Your task to perform on an android device: Open accessibility settings Image 0: 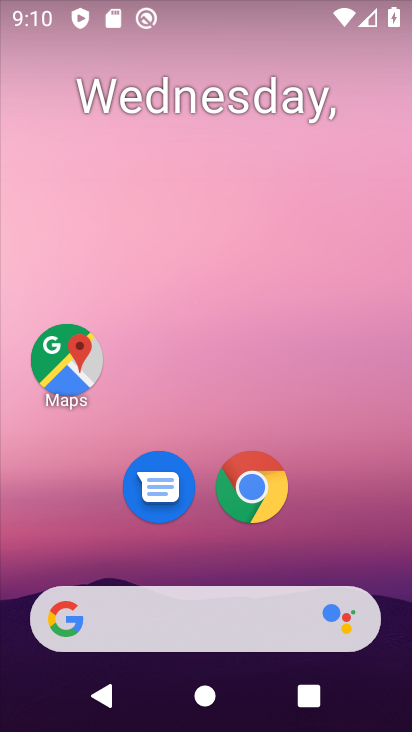
Step 0: drag from (223, 569) to (269, 11)
Your task to perform on an android device: Open accessibility settings Image 1: 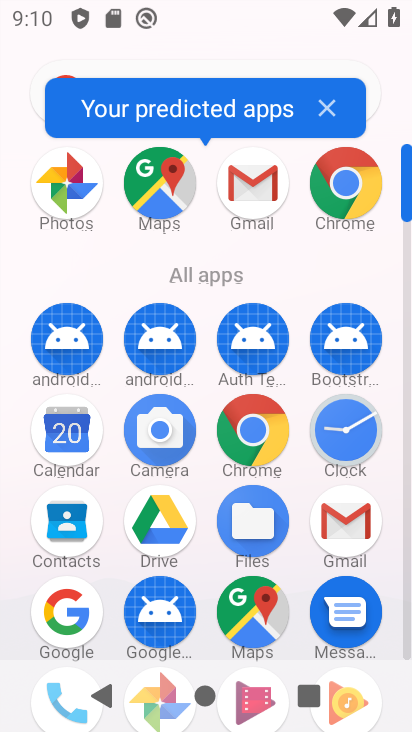
Step 1: drag from (211, 560) to (195, 161)
Your task to perform on an android device: Open accessibility settings Image 2: 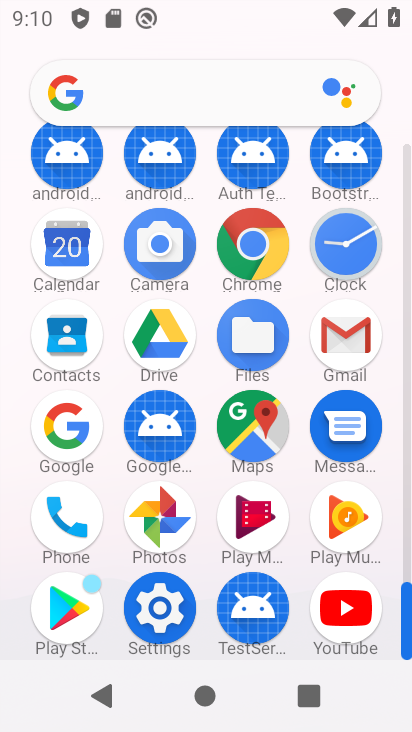
Step 2: click (152, 618)
Your task to perform on an android device: Open accessibility settings Image 3: 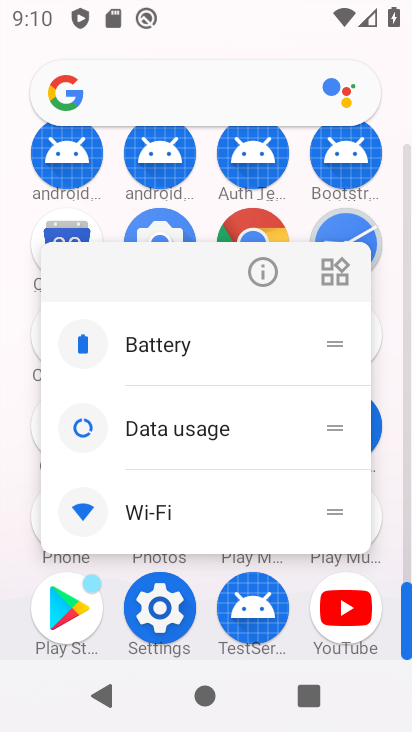
Step 3: click (178, 609)
Your task to perform on an android device: Open accessibility settings Image 4: 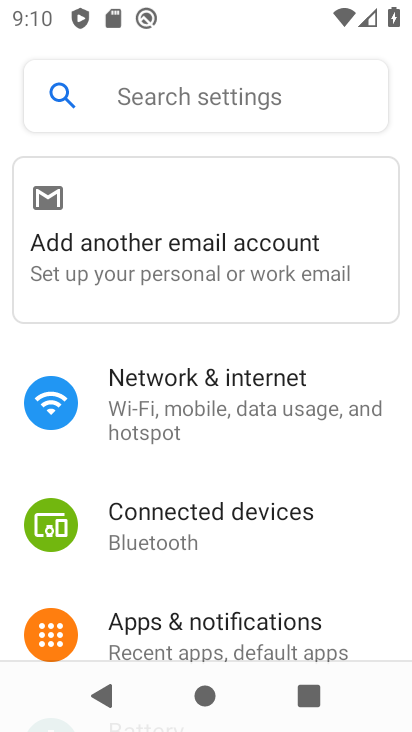
Step 4: drag from (272, 503) to (260, 100)
Your task to perform on an android device: Open accessibility settings Image 5: 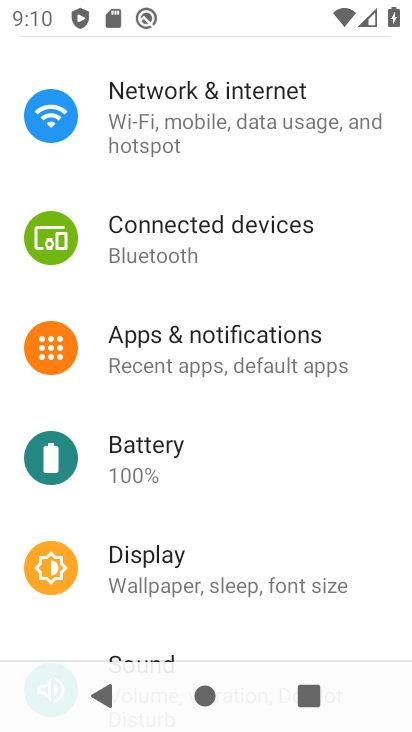
Step 5: drag from (157, 527) to (148, 111)
Your task to perform on an android device: Open accessibility settings Image 6: 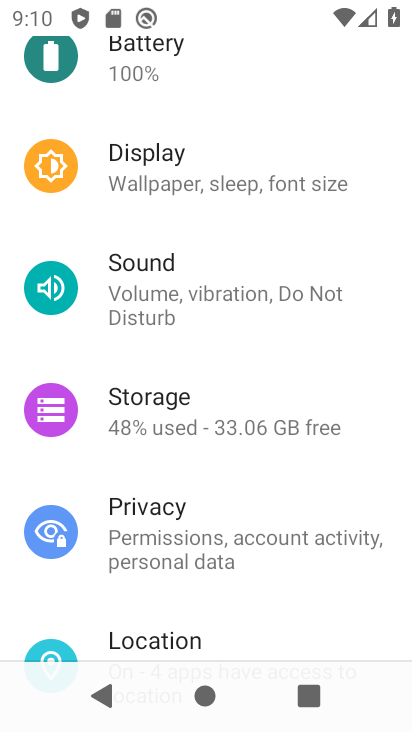
Step 6: drag from (234, 494) to (223, 109)
Your task to perform on an android device: Open accessibility settings Image 7: 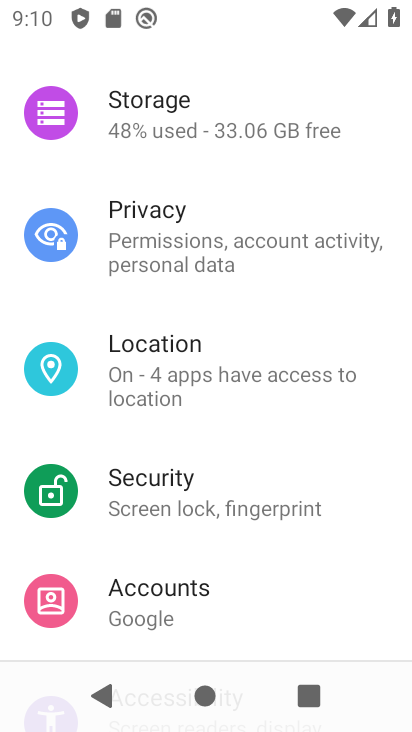
Step 7: drag from (204, 516) to (173, 104)
Your task to perform on an android device: Open accessibility settings Image 8: 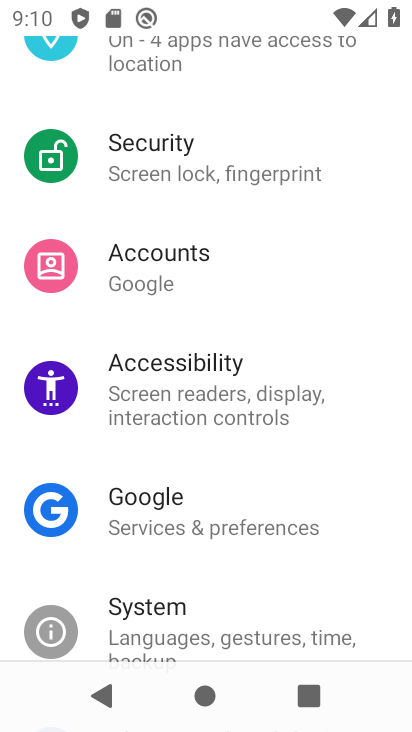
Step 8: click (218, 407)
Your task to perform on an android device: Open accessibility settings Image 9: 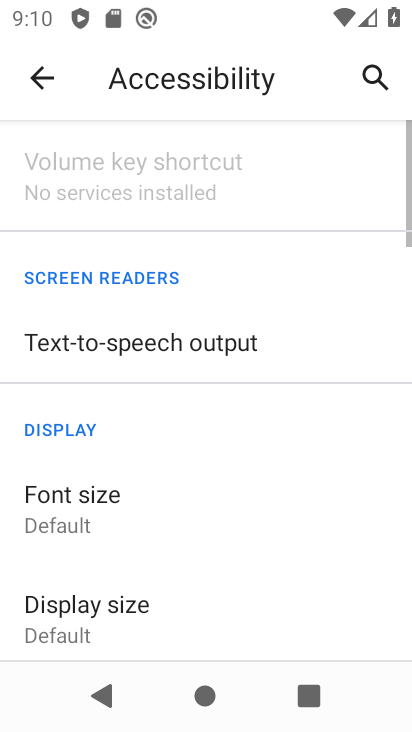
Step 9: task complete